Your task to perform on an android device: open a bookmark in the chrome app Image 0: 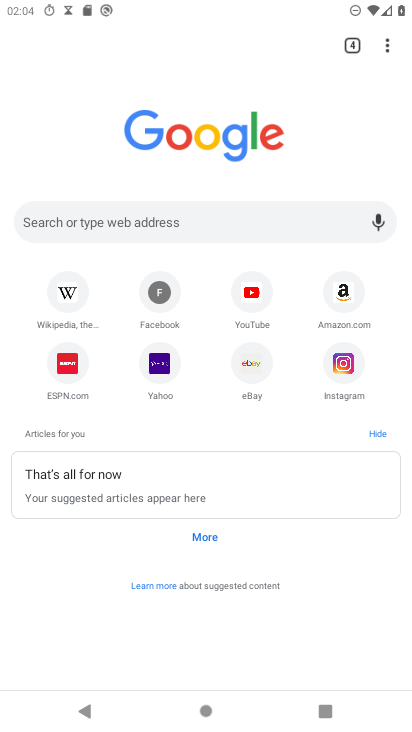
Step 0: press home button
Your task to perform on an android device: open a bookmark in the chrome app Image 1: 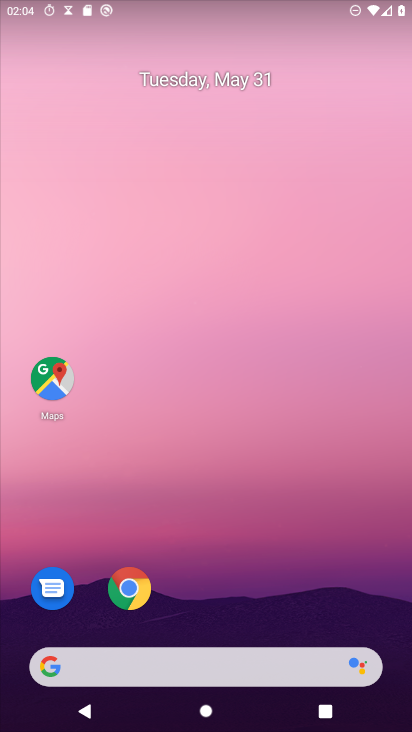
Step 1: drag from (244, 660) to (193, 34)
Your task to perform on an android device: open a bookmark in the chrome app Image 2: 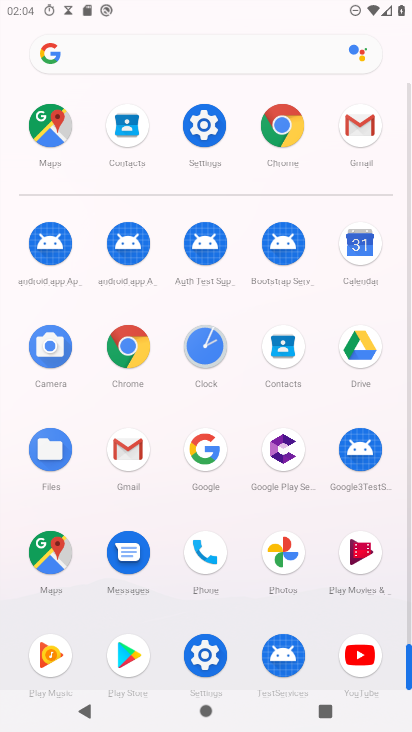
Step 2: click (138, 354)
Your task to perform on an android device: open a bookmark in the chrome app Image 3: 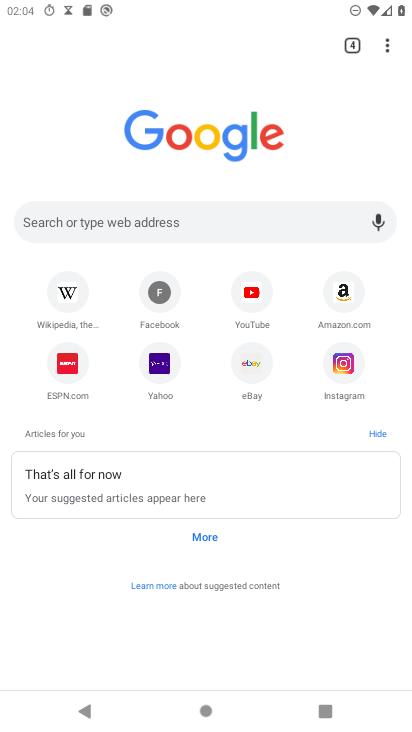
Step 3: task complete